Your task to perform on an android device: Open location settings Image 0: 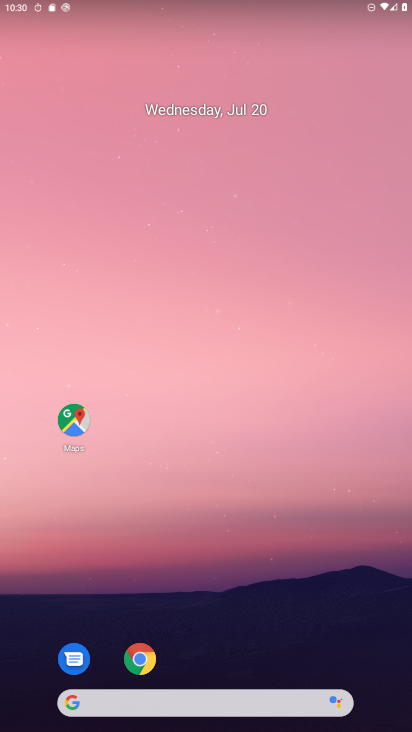
Step 0: drag from (282, 582) to (202, 11)
Your task to perform on an android device: Open location settings Image 1: 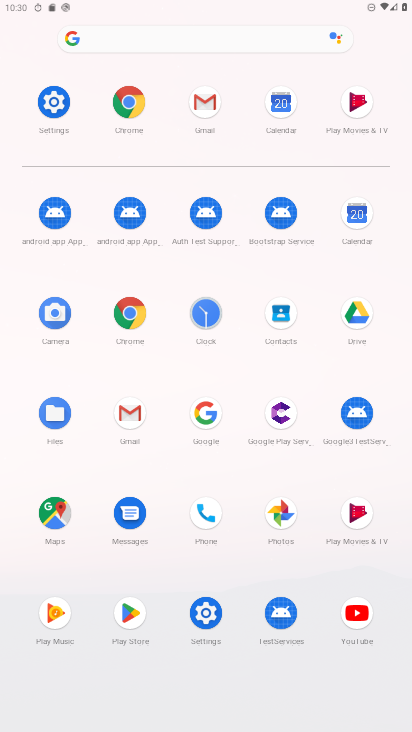
Step 1: click (57, 103)
Your task to perform on an android device: Open location settings Image 2: 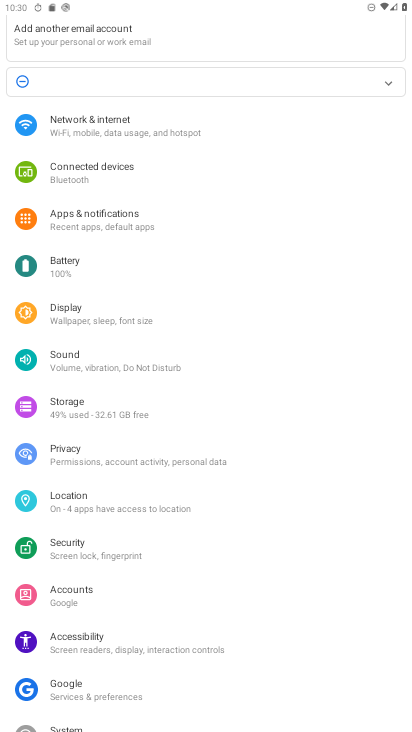
Step 2: click (127, 512)
Your task to perform on an android device: Open location settings Image 3: 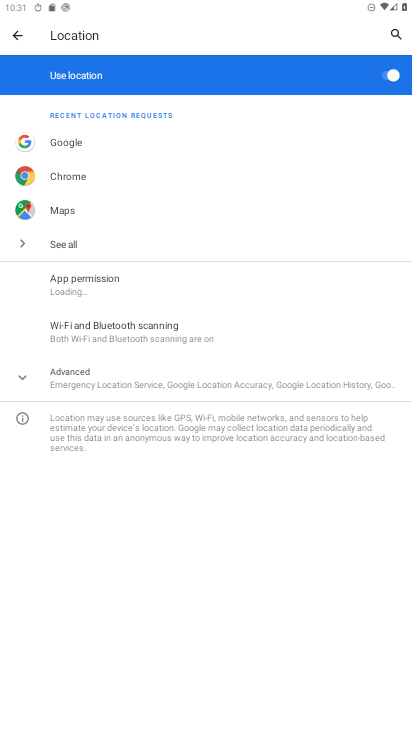
Step 3: task complete